Your task to perform on an android device: add a label to a message in the gmail app Image 0: 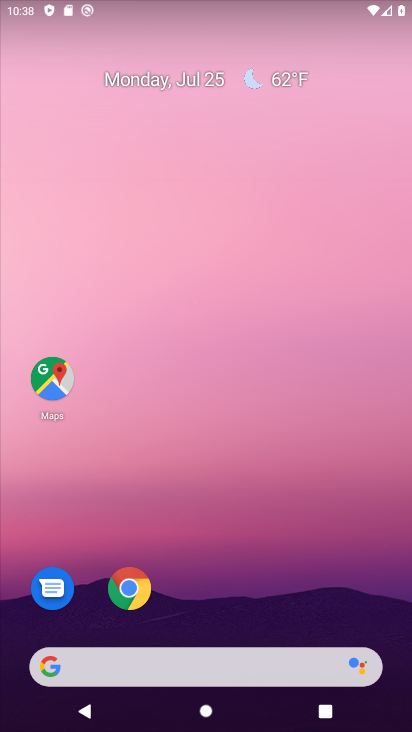
Step 0: drag from (35, 586) to (270, 92)
Your task to perform on an android device: add a label to a message in the gmail app Image 1: 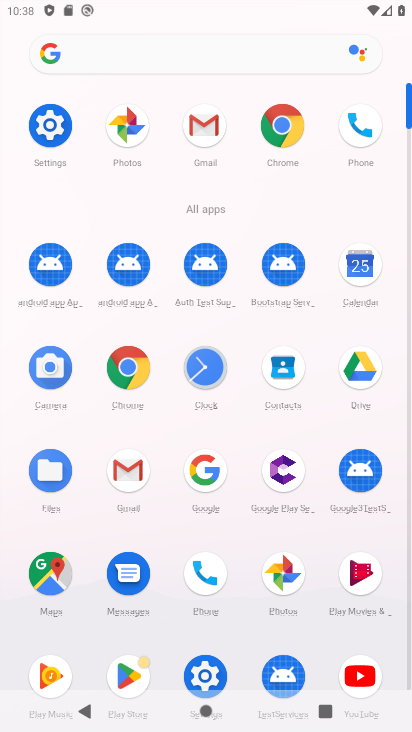
Step 1: click (209, 132)
Your task to perform on an android device: add a label to a message in the gmail app Image 2: 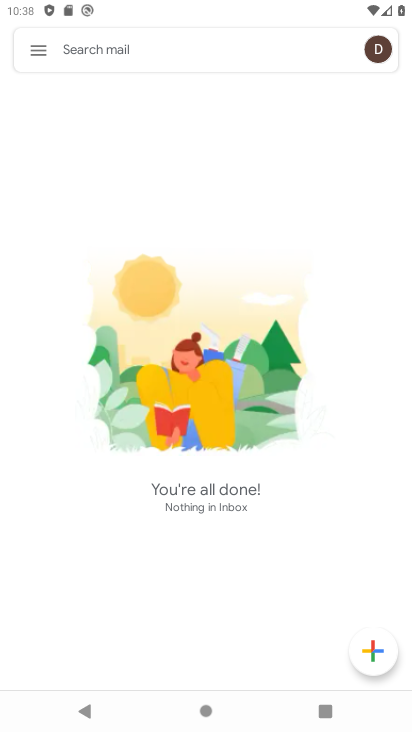
Step 2: task complete